Your task to perform on an android device: toggle improve location accuracy Image 0: 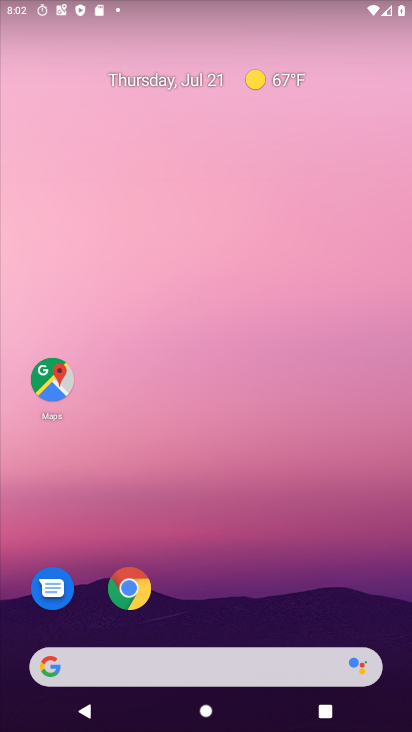
Step 0: drag from (144, 561) to (164, 222)
Your task to perform on an android device: toggle improve location accuracy Image 1: 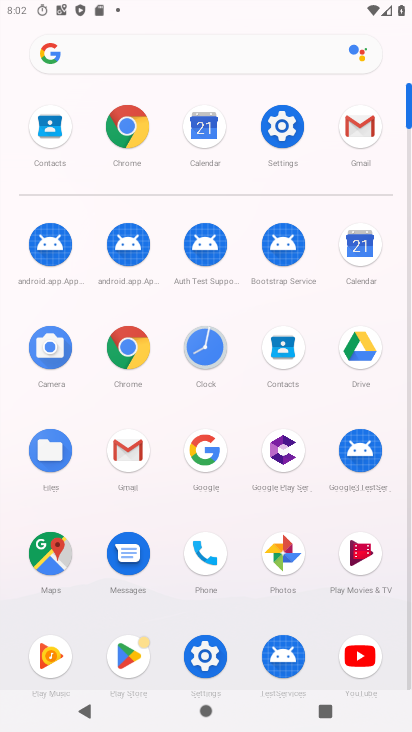
Step 1: click (272, 113)
Your task to perform on an android device: toggle improve location accuracy Image 2: 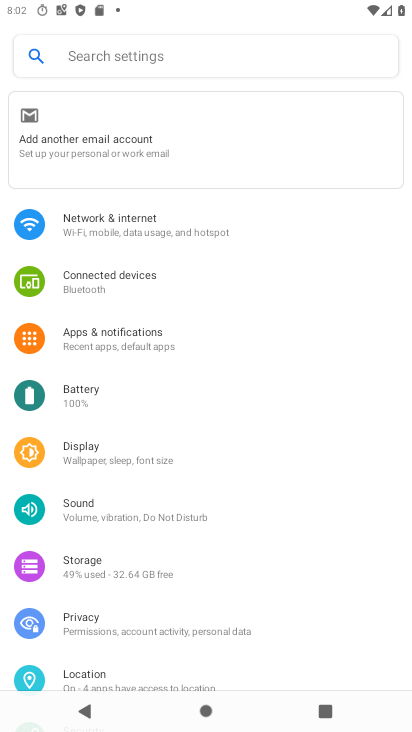
Step 2: click (84, 689)
Your task to perform on an android device: toggle improve location accuracy Image 3: 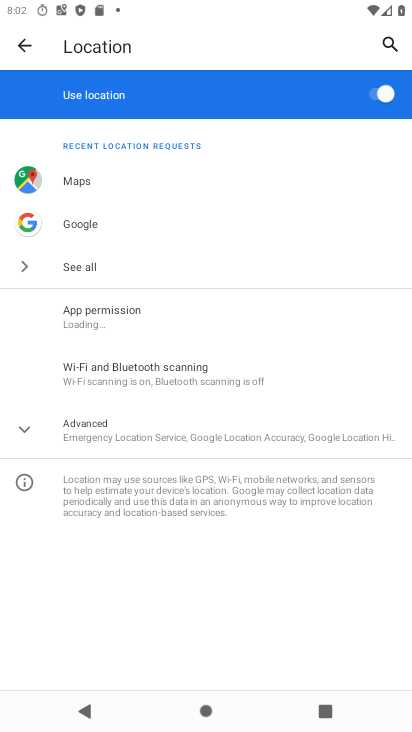
Step 3: click (64, 435)
Your task to perform on an android device: toggle improve location accuracy Image 4: 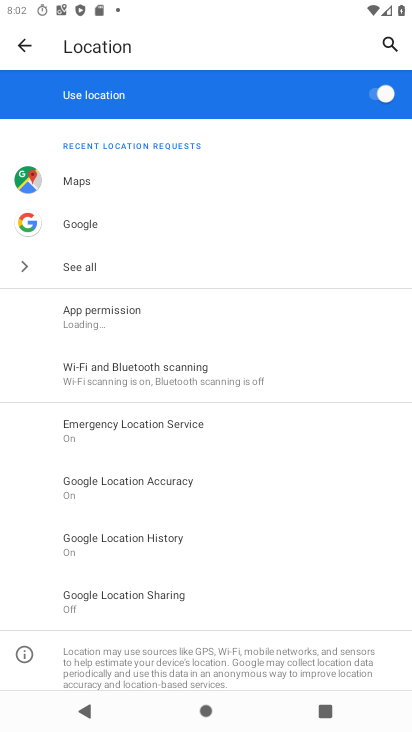
Step 4: click (95, 479)
Your task to perform on an android device: toggle improve location accuracy Image 5: 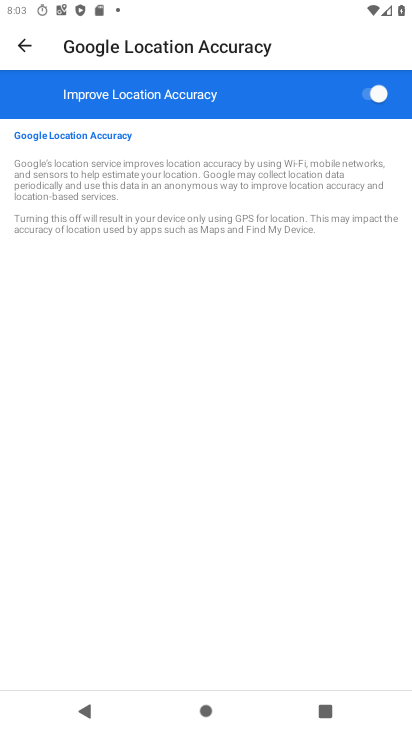
Step 5: click (379, 87)
Your task to perform on an android device: toggle improve location accuracy Image 6: 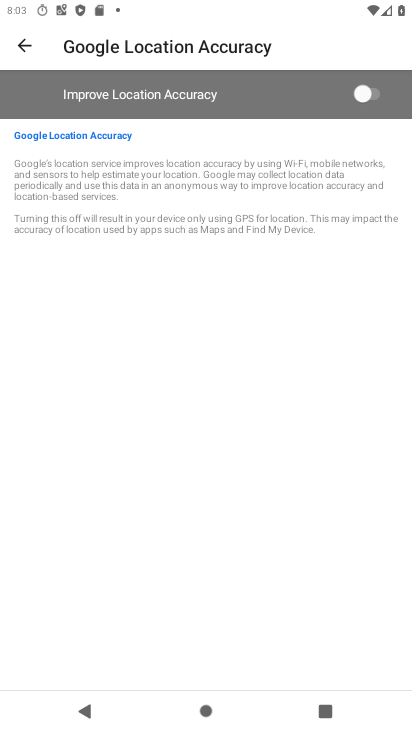
Step 6: task complete